Your task to perform on an android device: Open ESPN.com Image 0: 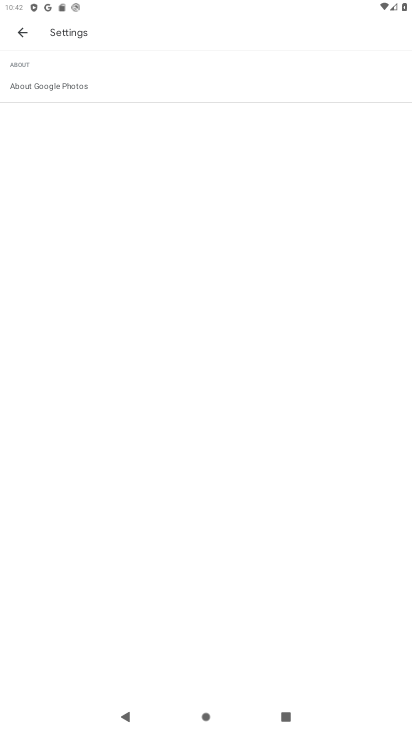
Step 0: press home button
Your task to perform on an android device: Open ESPN.com Image 1: 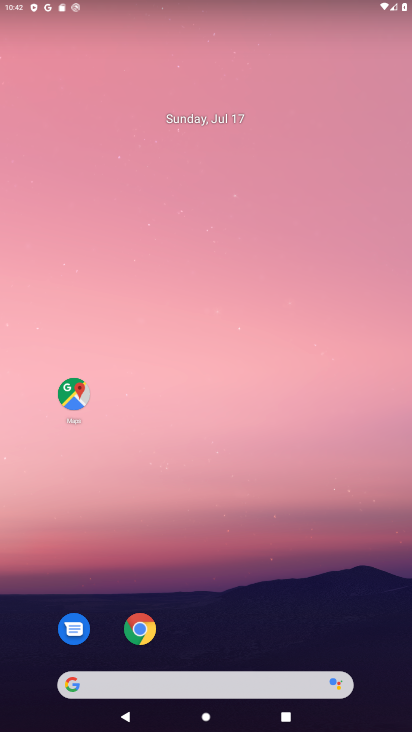
Step 1: drag from (187, 668) to (191, 150)
Your task to perform on an android device: Open ESPN.com Image 2: 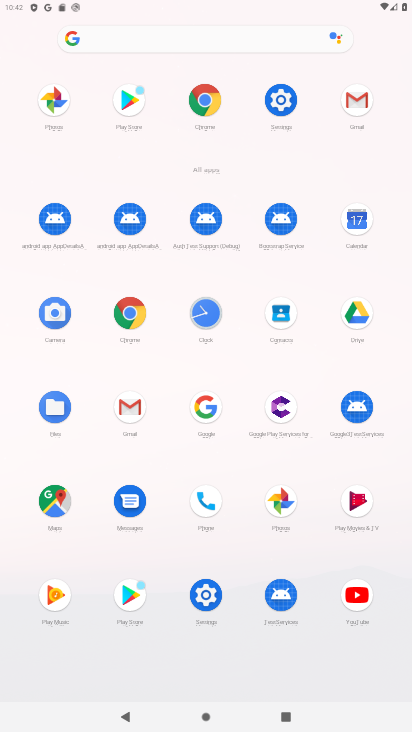
Step 2: click (123, 312)
Your task to perform on an android device: Open ESPN.com Image 3: 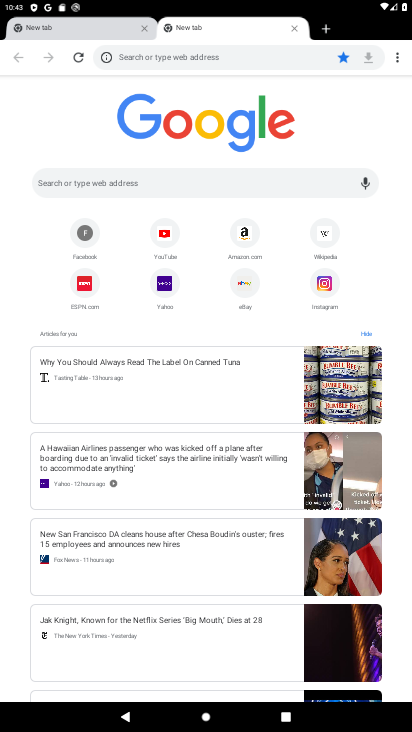
Step 3: click (84, 270)
Your task to perform on an android device: Open ESPN.com Image 4: 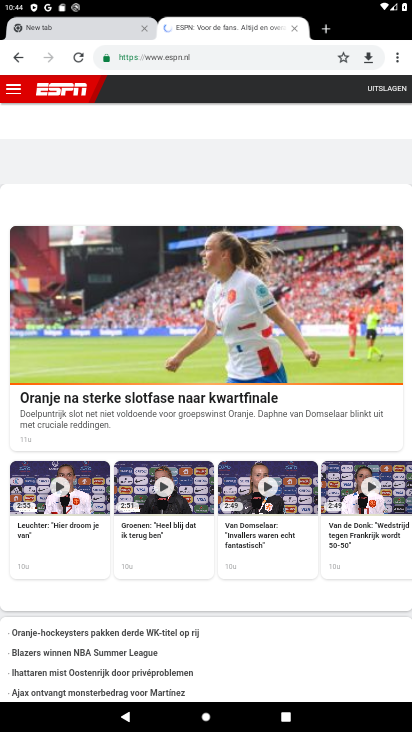
Step 4: task complete